Your task to perform on an android device: install app "Google Find My Device" Image 0: 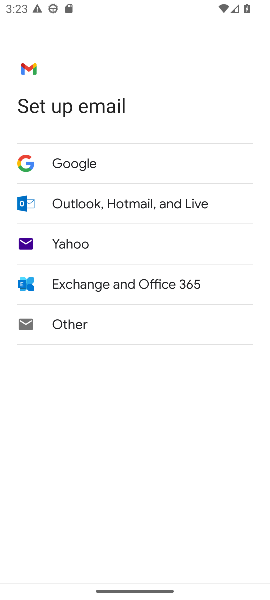
Step 0: press back button
Your task to perform on an android device: install app "Google Find My Device" Image 1: 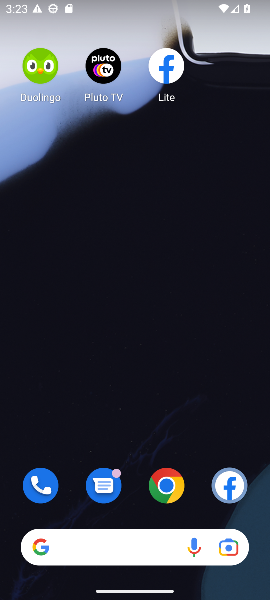
Step 1: drag from (134, 512) to (195, 62)
Your task to perform on an android device: install app "Google Find My Device" Image 2: 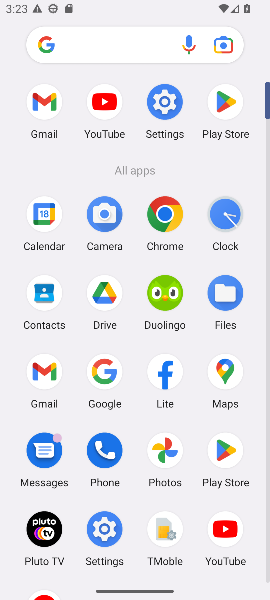
Step 2: click (222, 105)
Your task to perform on an android device: install app "Google Find My Device" Image 3: 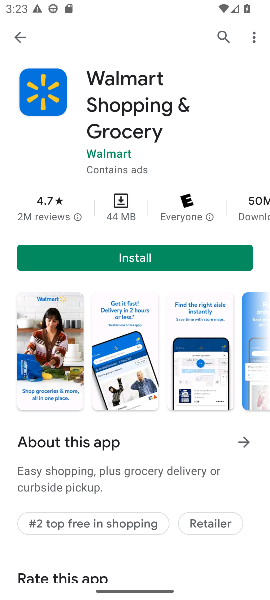
Step 3: click (220, 38)
Your task to perform on an android device: install app "Google Find My Device" Image 4: 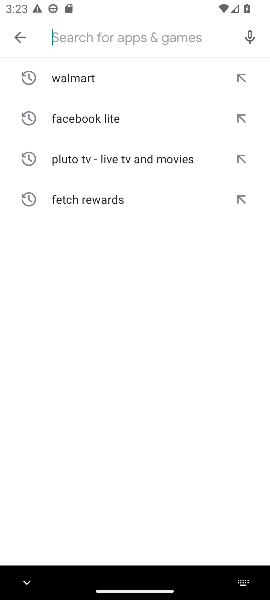
Step 4: click (120, 28)
Your task to perform on an android device: install app "Google Find My Device" Image 5: 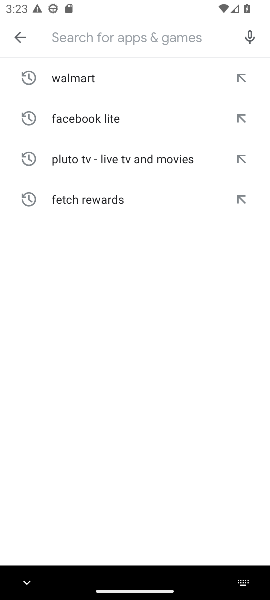
Step 5: type "Google Find My Device"
Your task to perform on an android device: install app "Google Find My Device" Image 6: 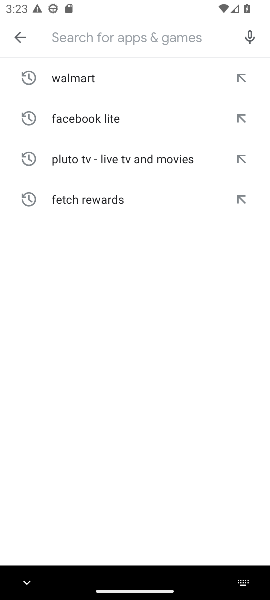
Step 6: click (117, 277)
Your task to perform on an android device: install app "Google Find My Device" Image 7: 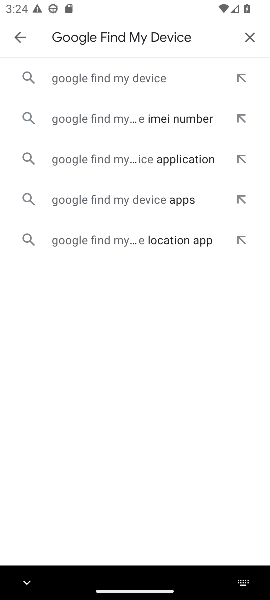
Step 7: click (153, 77)
Your task to perform on an android device: install app "Google Find My Device" Image 8: 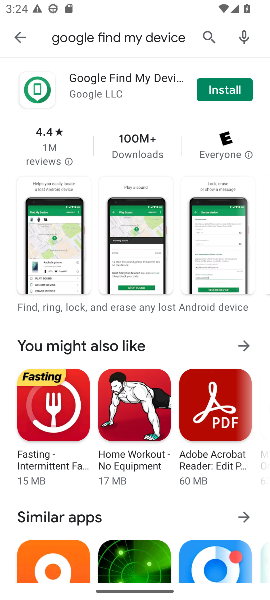
Step 8: click (204, 89)
Your task to perform on an android device: install app "Google Find My Device" Image 9: 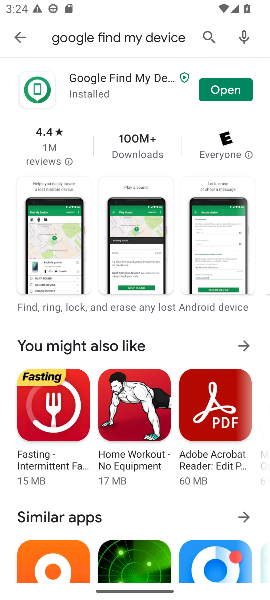
Step 9: task complete